Your task to perform on an android device: turn vacation reply on in the gmail app Image 0: 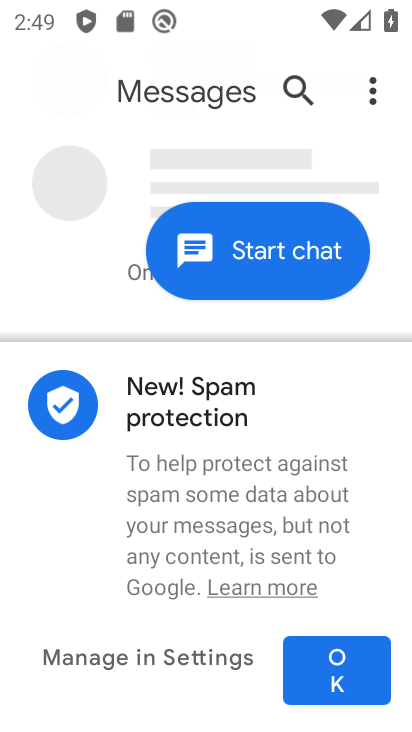
Step 0: press home button
Your task to perform on an android device: turn vacation reply on in the gmail app Image 1: 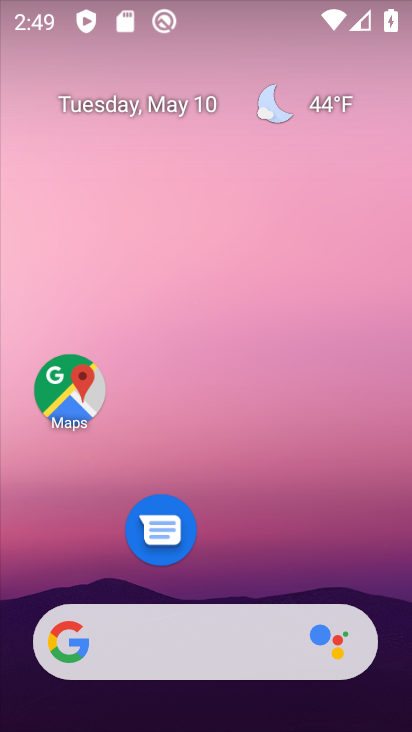
Step 1: drag from (259, 560) to (268, 122)
Your task to perform on an android device: turn vacation reply on in the gmail app Image 2: 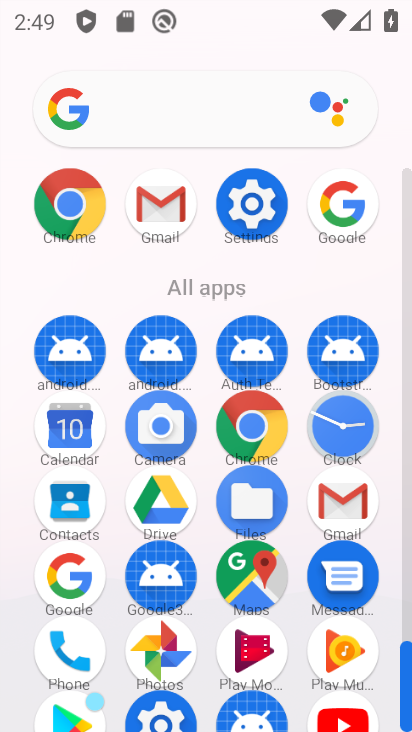
Step 2: click (161, 206)
Your task to perform on an android device: turn vacation reply on in the gmail app Image 3: 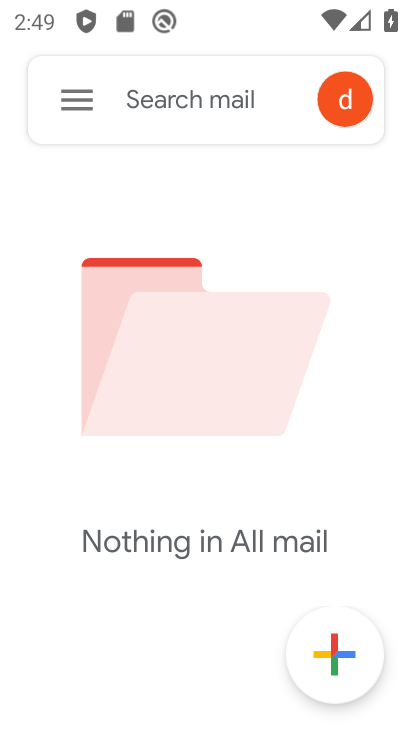
Step 3: click (73, 109)
Your task to perform on an android device: turn vacation reply on in the gmail app Image 4: 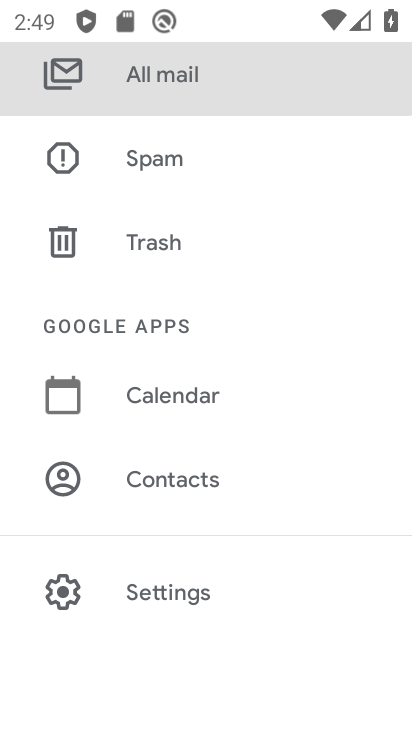
Step 4: click (173, 596)
Your task to perform on an android device: turn vacation reply on in the gmail app Image 5: 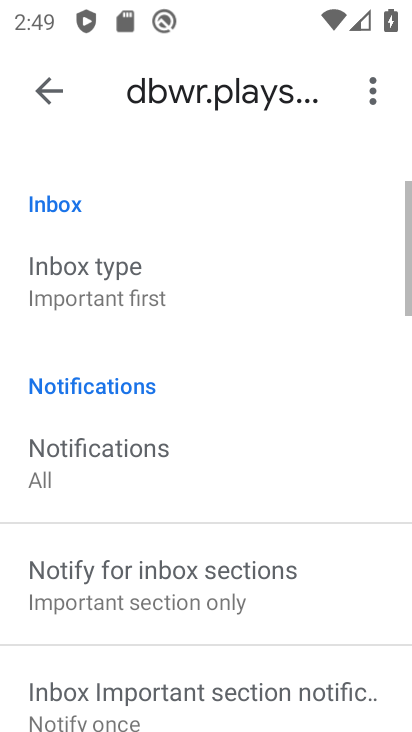
Step 5: drag from (188, 585) to (190, 22)
Your task to perform on an android device: turn vacation reply on in the gmail app Image 6: 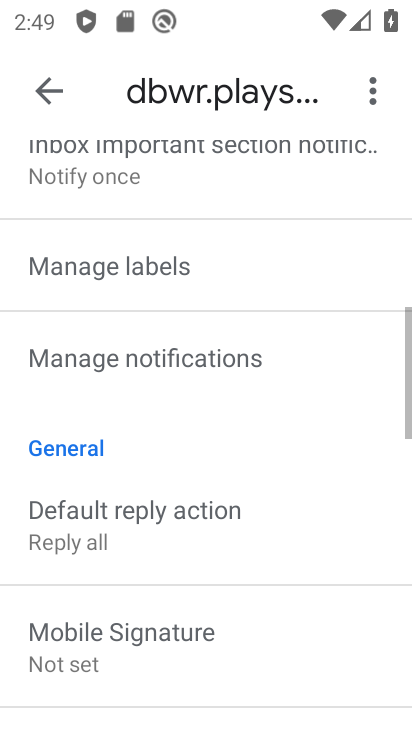
Step 6: drag from (202, 602) to (153, 72)
Your task to perform on an android device: turn vacation reply on in the gmail app Image 7: 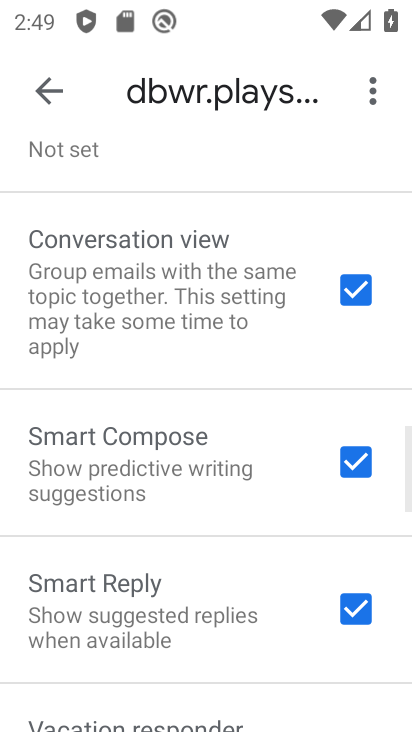
Step 7: drag from (172, 657) to (165, 374)
Your task to perform on an android device: turn vacation reply on in the gmail app Image 8: 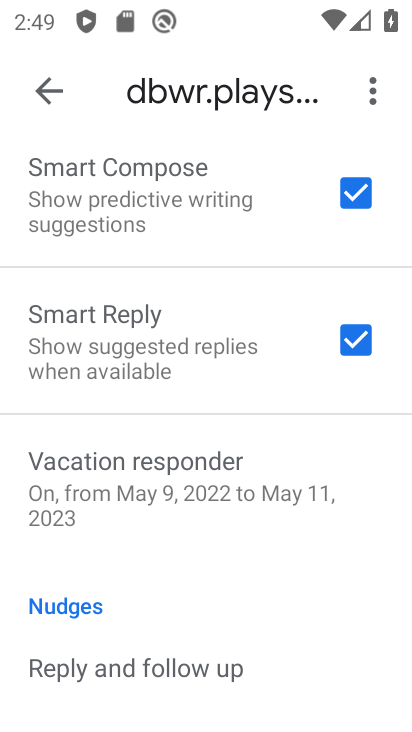
Step 8: click (118, 519)
Your task to perform on an android device: turn vacation reply on in the gmail app Image 9: 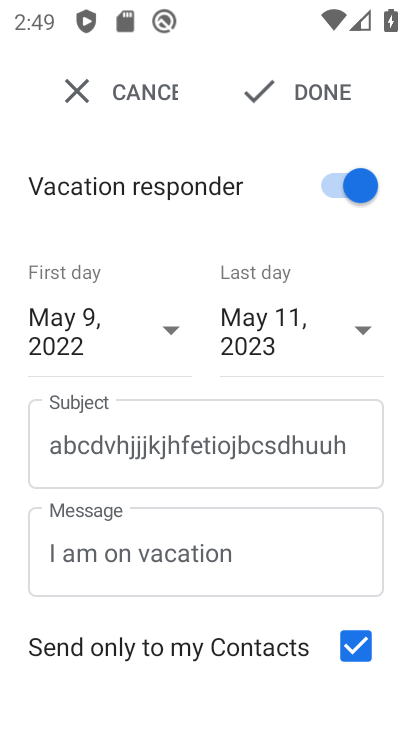
Step 9: task complete